Your task to perform on an android device: all mails in gmail Image 0: 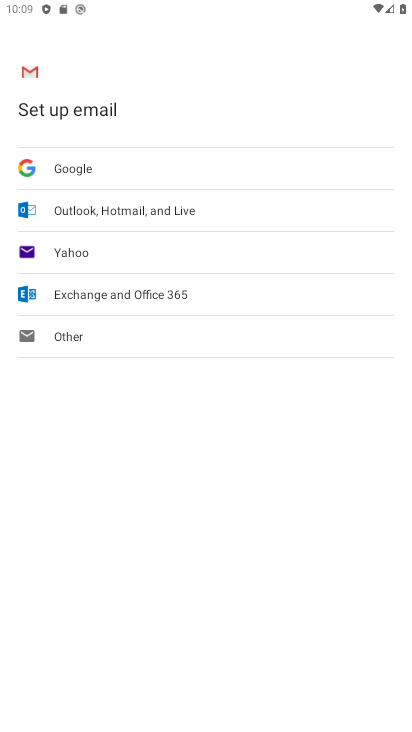
Step 0: press home button
Your task to perform on an android device: all mails in gmail Image 1: 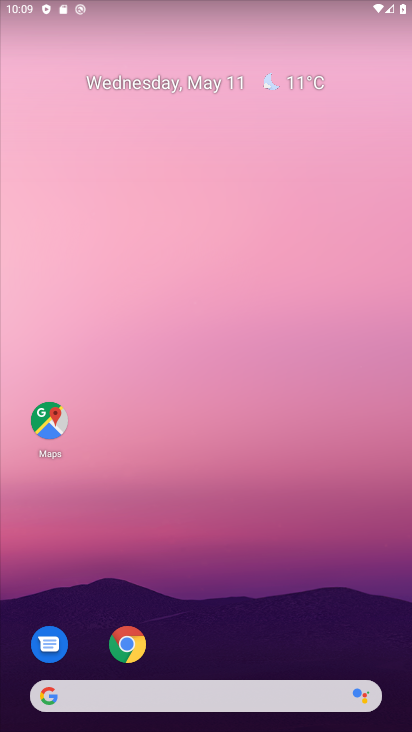
Step 1: drag from (300, 660) to (271, 7)
Your task to perform on an android device: all mails in gmail Image 2: 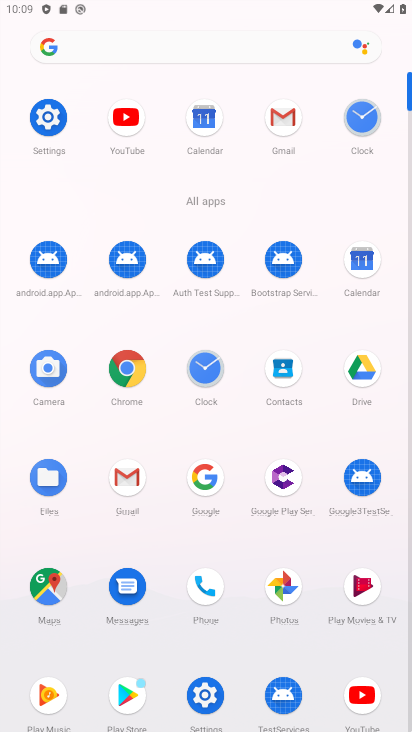
Step 2: click (288, 121)
Your task to perform on an android device: all mails in gmail Image 3: 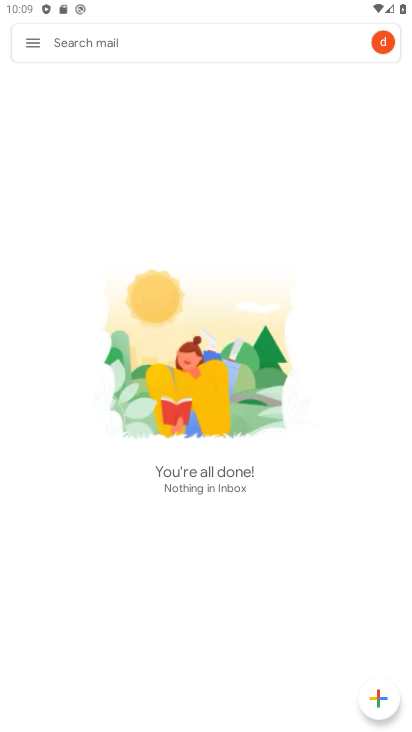
Step 3: click (30, 48)
Your task to perform on an android device: all mails in gmail Image 4: 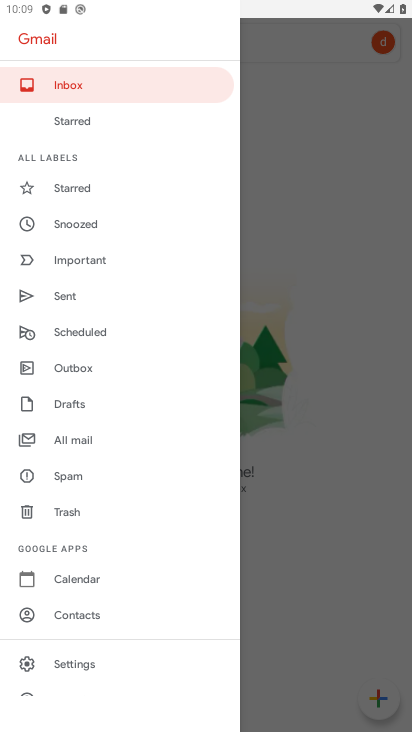
Step 4: click (72, 444)
Your task to perform on an android device: all mails in gmail Image 5: 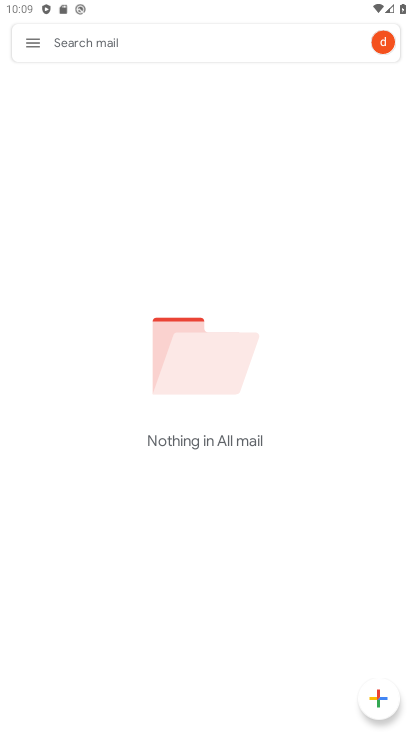
Step 5: task complete